Your task to perform on an android device: turn on showing notifications on the lock screen Image 0: 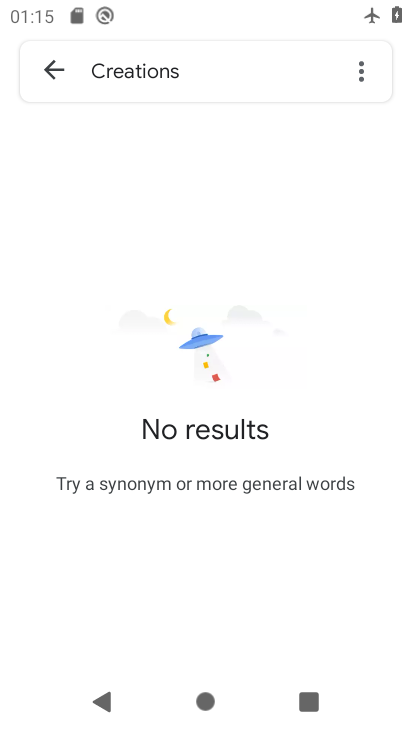
Step 0: press home button
Your task to perform on an android device: turn on showing notifications on the lock screen Image 1: 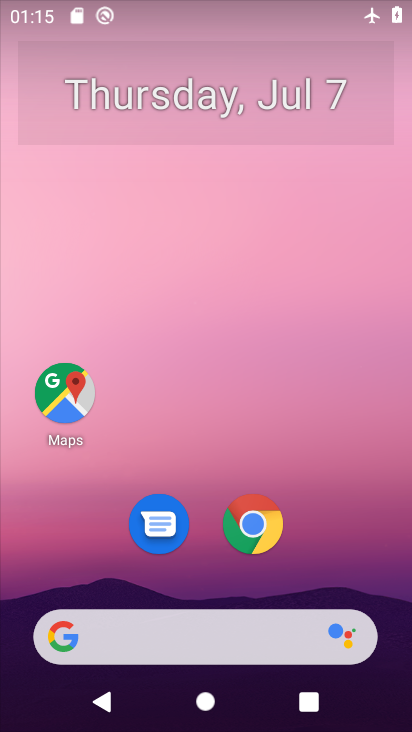
Step 1: drag from (307, 550) to (186, 46)
Your task to perform on an android device: turn on showing notifications on the lock screen Image 2: 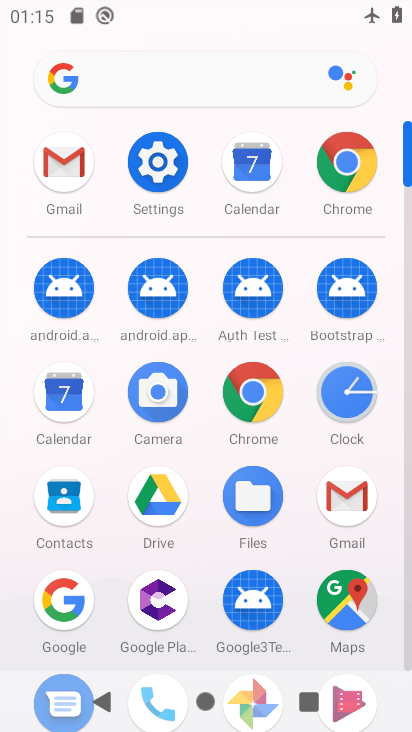
Step 2: click (164, 158)
Your task to perform on an android device: turn on showing notifications on the lock screen Image 3: 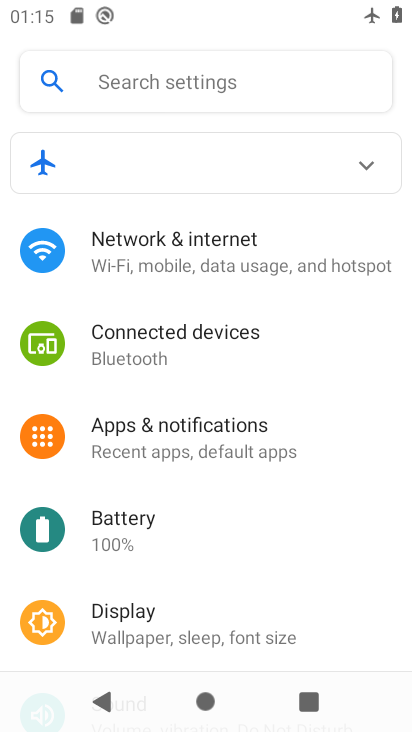
Step 3: click (184, 439)
Your task to perform on an android device: turn on showing notifications on the lock screen Image 4: 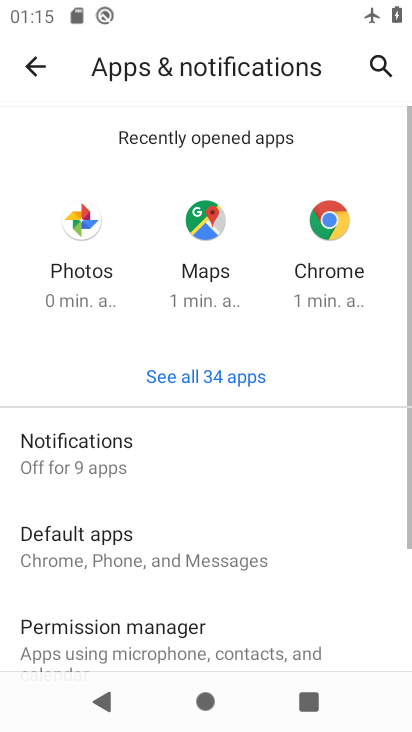
Step 4: click (173, 455)
Your task to perform on an android device: turn on showing notifications on the lock screen Image 5: 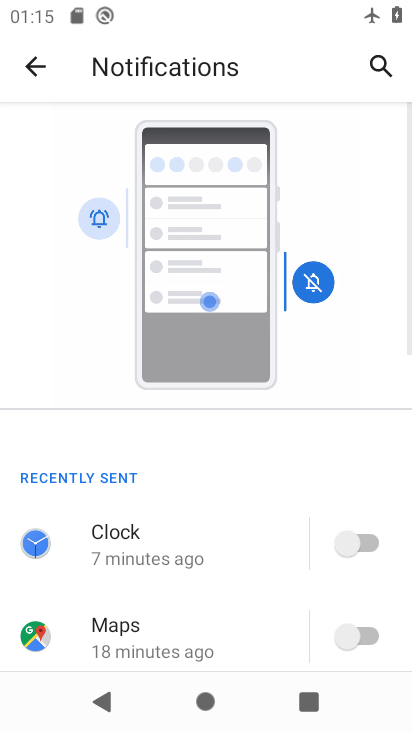
Step 5: drag from (200, 604) to (222, 77)
Your task to perform on an android device: turn on showing notifications on the lock screen Image 6: 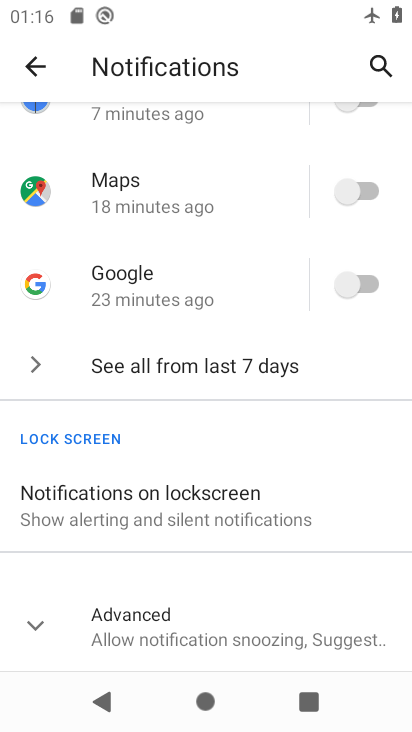
Step 6: click (208, 499)
Your task to perform on an android device: turn on showing notifications on the lock screen Image 7: 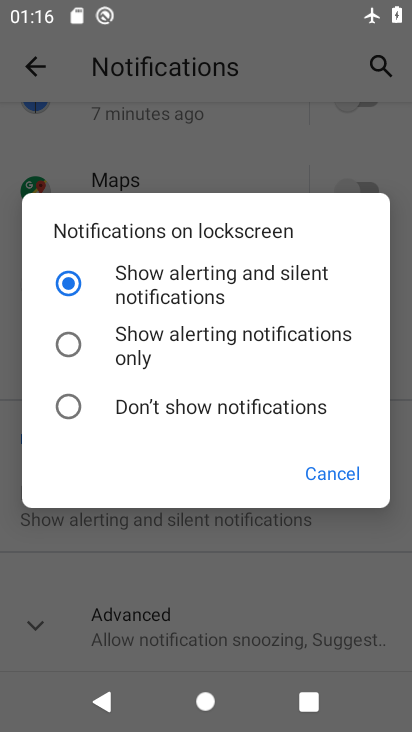
Step 7: click (66, 265)
Your task to perform on an android device: turn on showing notifications on the lock screen Image 8: 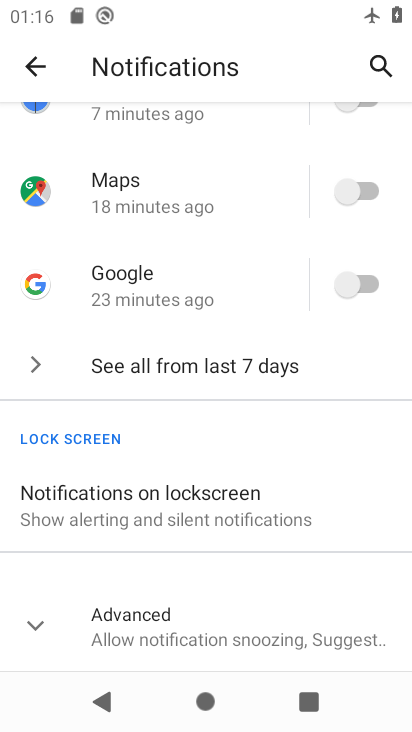
Step 8: task complete